Your task to perform on an android device: turn off sleep mode Image 0: 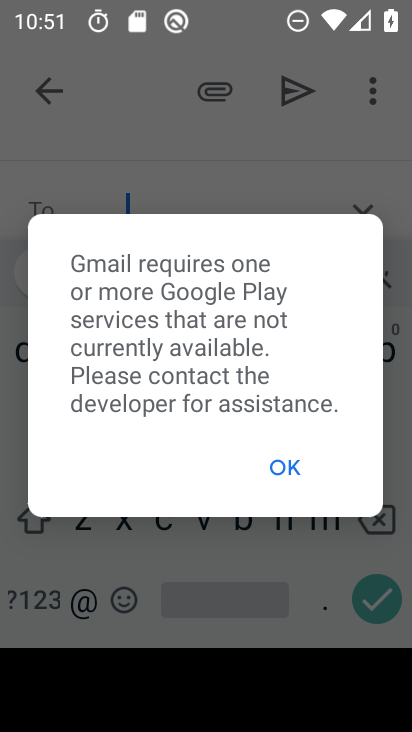
Step 0: press home button
Your task to perform on an android device: turn off sleep mode Image 1: 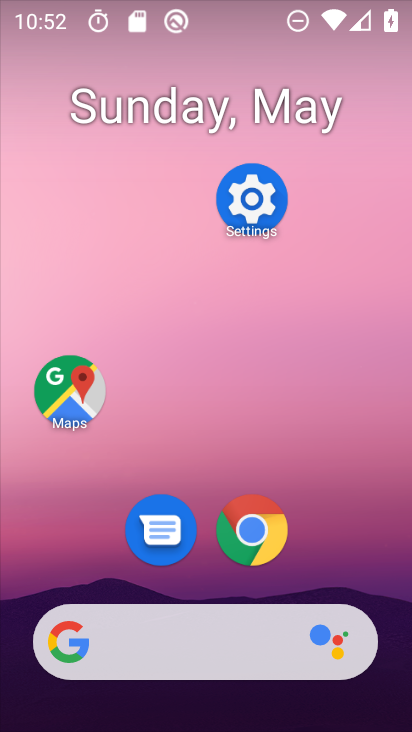
Step 1: drag from (254, 694) to (274, 25)
Your task to perform on an android device: turn off sleep mode Image 2: 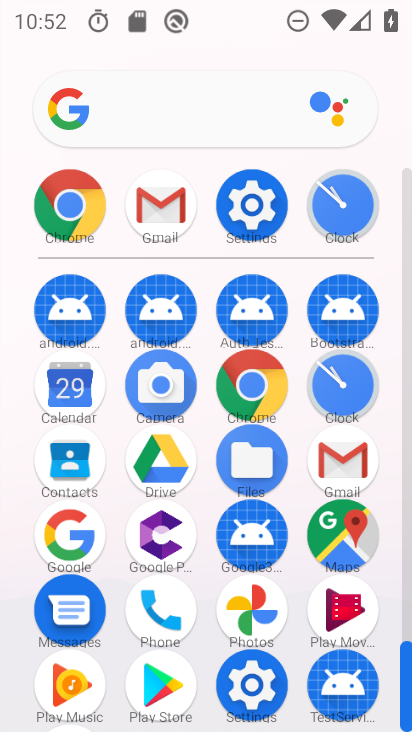
Step 2: click (259, 211)
Your task to perform on an android device: turn off sleep mode Image 3: 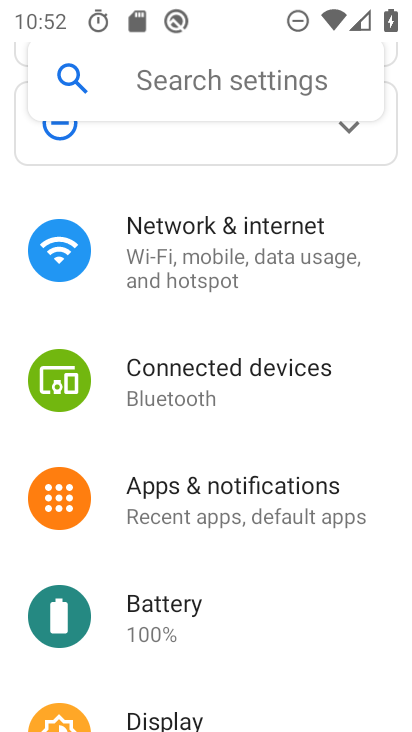
Step 3: click (194, 74)
Your task to perform on an android device: turn off sleep mode Image 4: 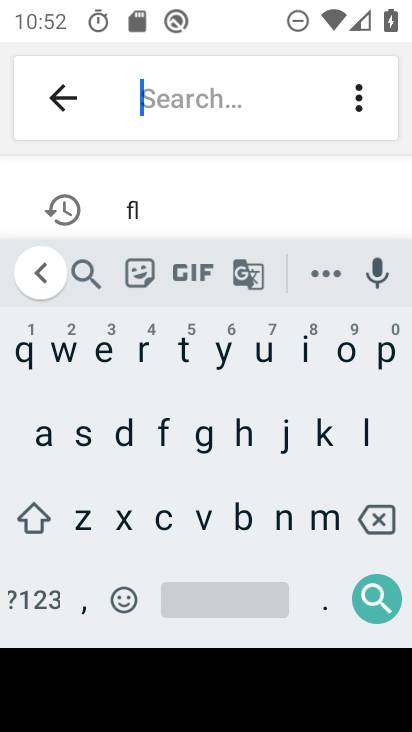
Step 4: click (89, 424)
Your task to perform on an android device: turn off sleep mode Image 5: 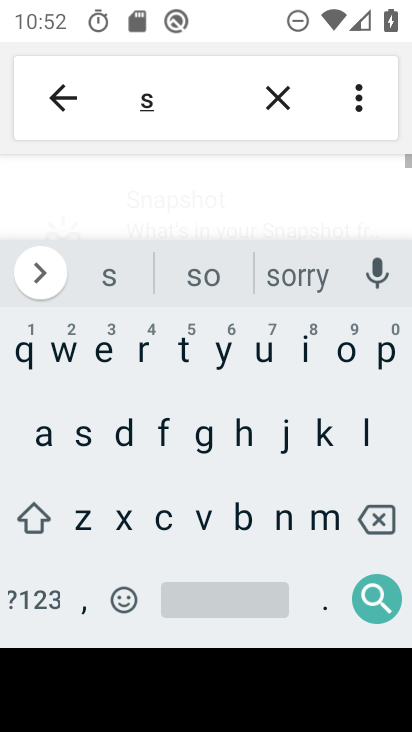
Step 5: click (369, 426)
Your task to perform on an android device: turn off sleep mode Image 6: 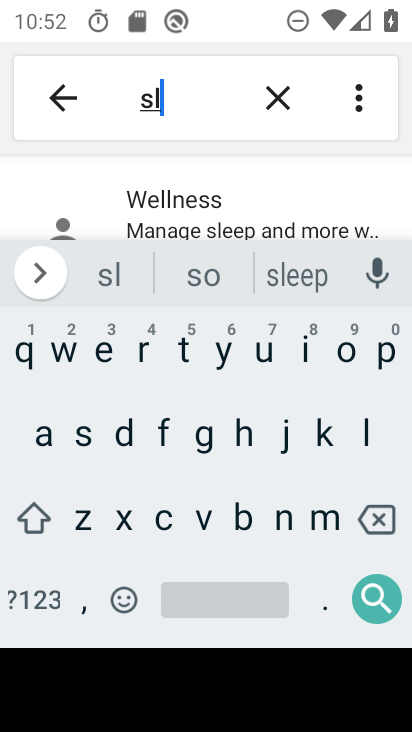
Step 6: click (170, 210)
Your task to perform on an android device: turn off sleep mode Image 7: 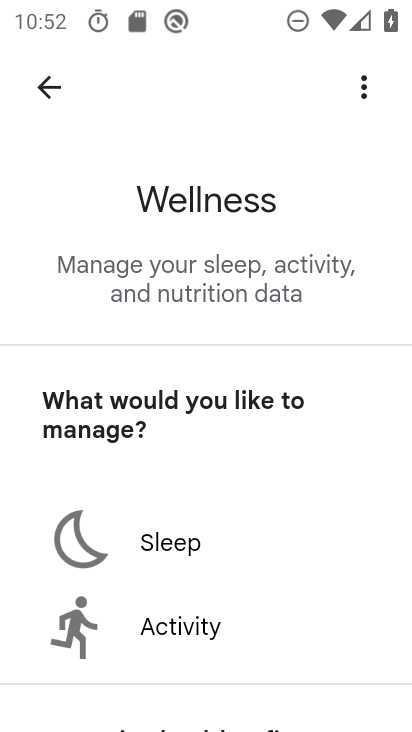
Step 7: click (134, 533)
Your task to perform on an android device: turn off sleep mode Image 8: 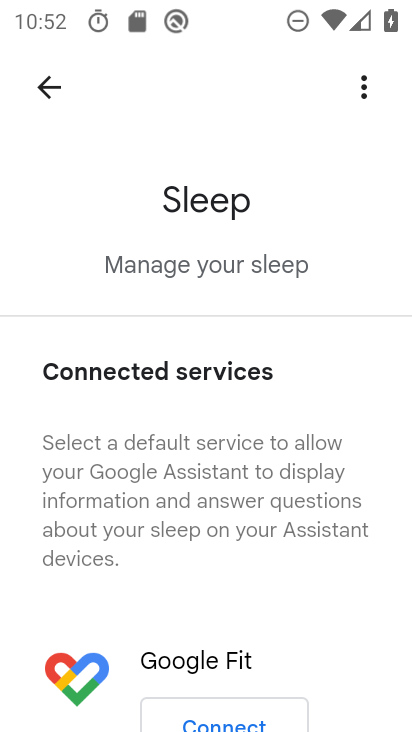
Step 8: task complete